Your task to perform on an android device: turn off smart reply in the gmail app Image 0: 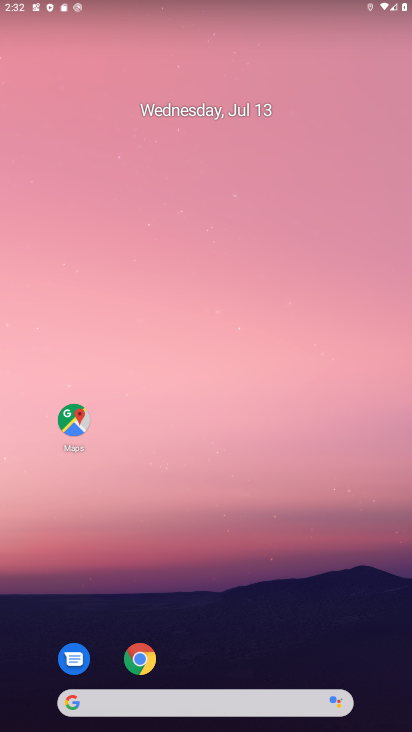
Step 0: drag from (378, 558) to (306, 62)
Your task to perform on an android device: turn off smart reply in the gmail app Image 1: 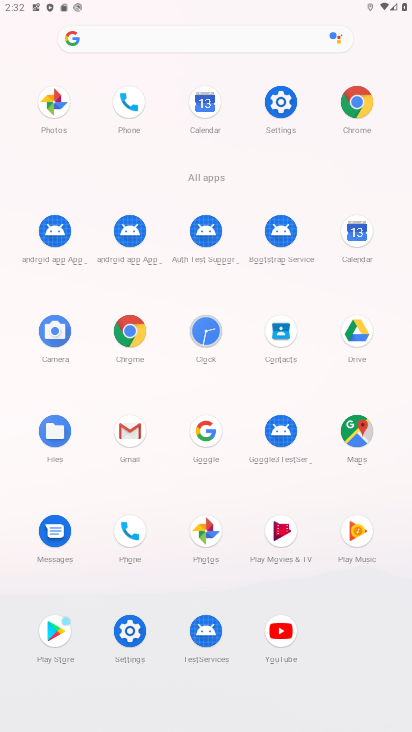
Step 1: click (126, 425)
Your task to perform on an android device: turn off smart reply in the gmail app Image 2: 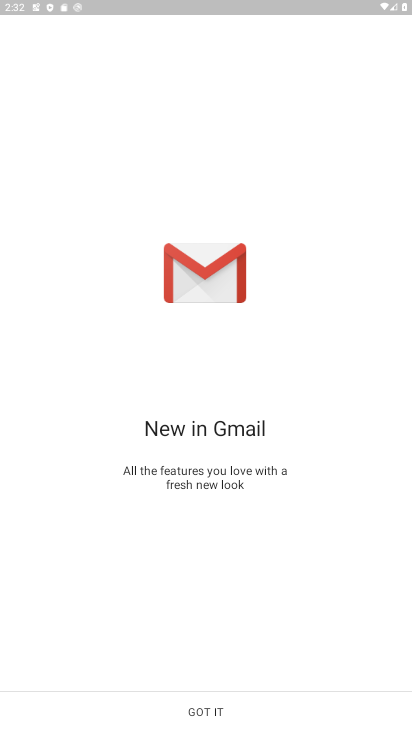
Step 2: click (181, 711)
Your task to perform on an android device: turn off smart reply in the gmail app Image 3: 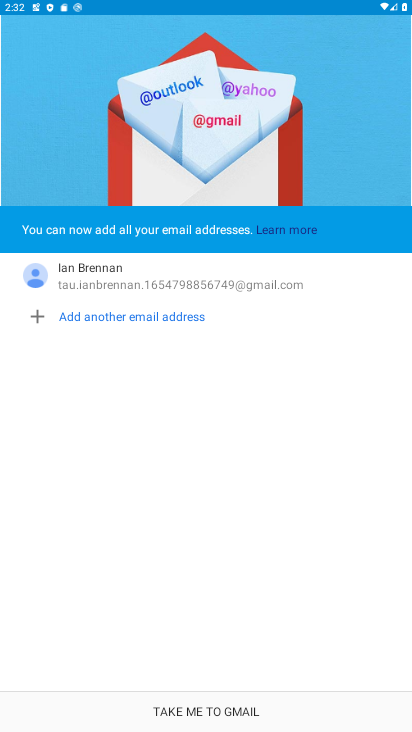
Step 3: click (193, 710)
Your task to perform on an android device: turn off smart reply in the gmail app Image 4: 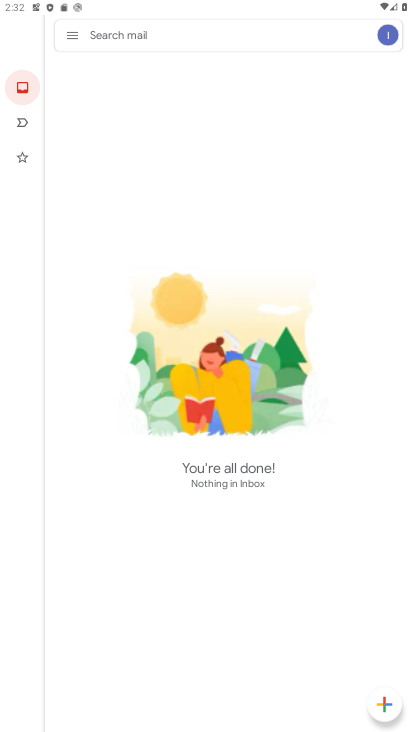
Step 4: click (65, 33)
Your task to perform on an android device: turn off smart reply in the gmail app Image 5: 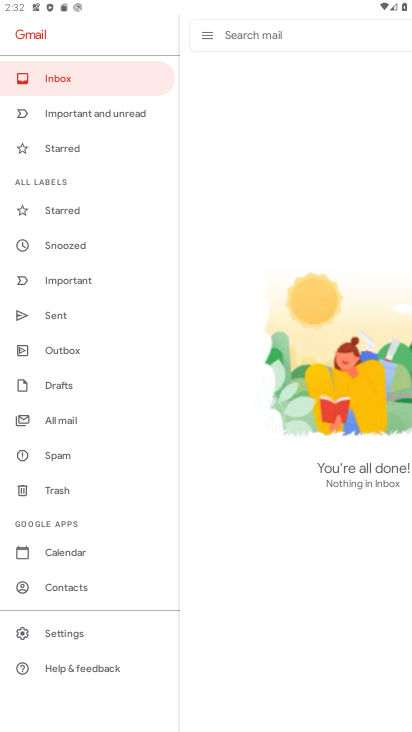
Step 5: click (74, 644)
Your task to perform on an android device: turn off smart reply in the gmail app Image 6: 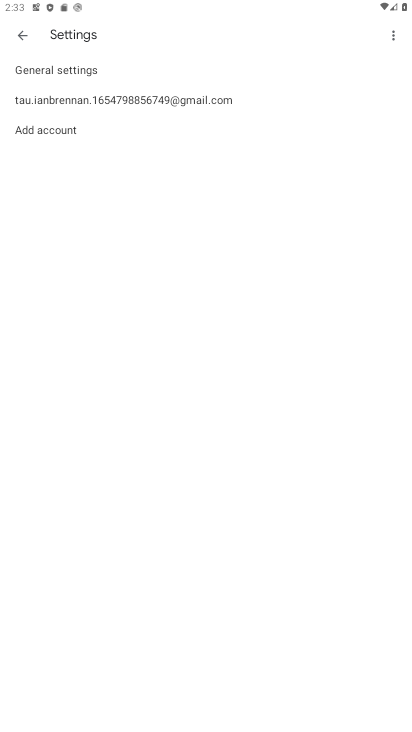
Step 6: click (67, 66)
Your task to perform on an android device: turn off smart reply in the gmail app Image 7: 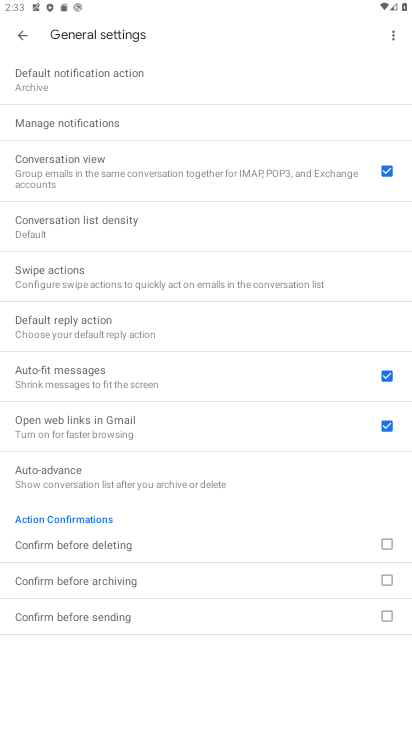
Step 7: click (19, 33)
Your task to perform on an android device: turn off smart reply in the gmail app Image 8: 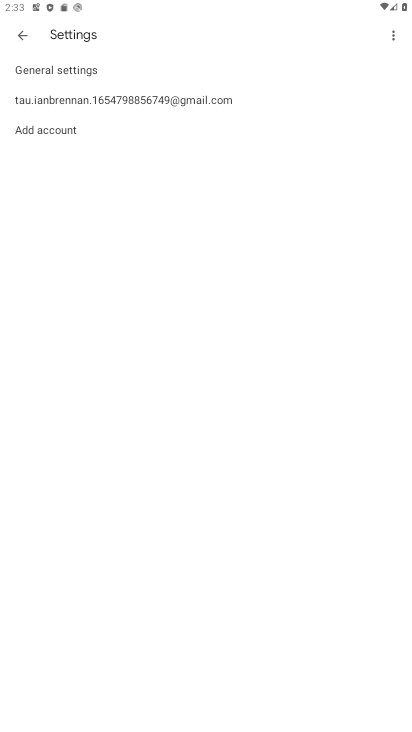
Step 8: click (95, 96)
Your task to perform on an android device: turn off smart reply in the gmail app Image 9: 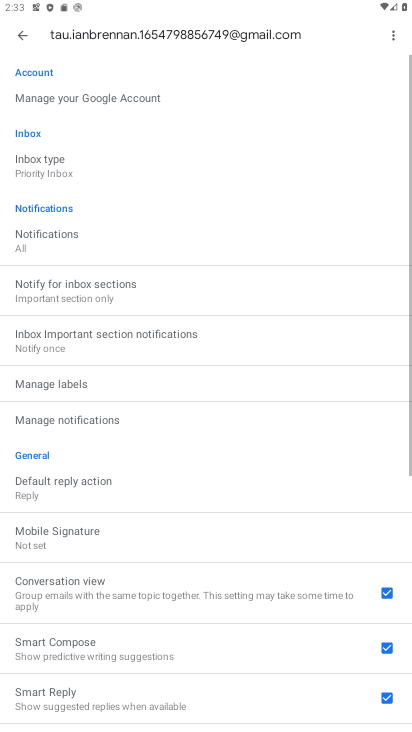
Step 9: drag from (147, 614) to (168, 269)
Your task to perform on an android device: turn off smart reply in the gmail app Image 10: 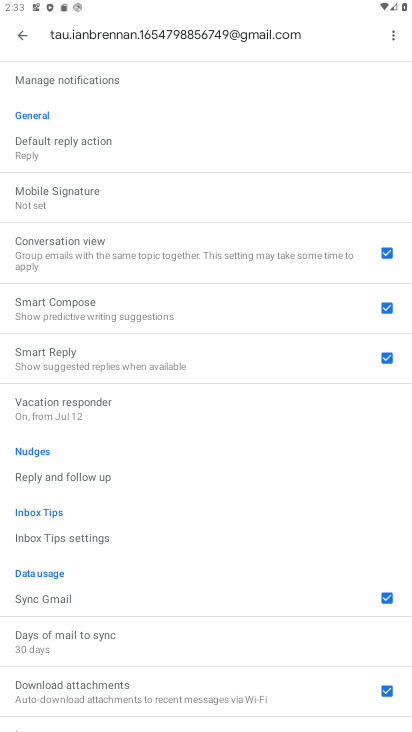
Step 10: click (387, 353)
Your task to perform on an android device: turn off smart reply in the gmail app Image 11: 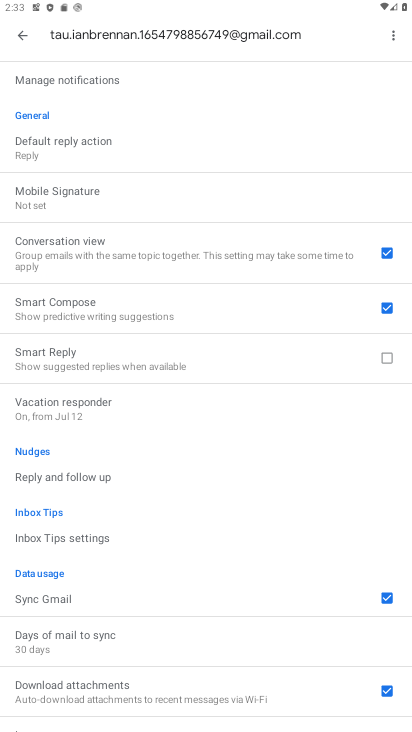
Step 11: task complete